Your task to perform on an android device: Open the phone app and click the voicemail tab. Image 0: 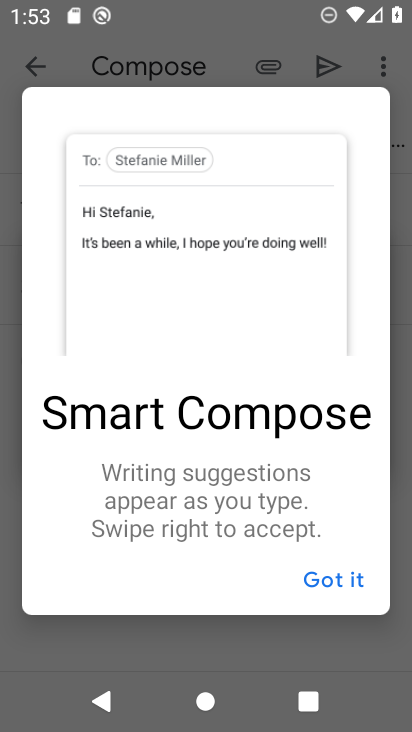
Step 0: press home button
Your task to perform on an android device: Open the phone app and click the voicemail tab. Image 1: 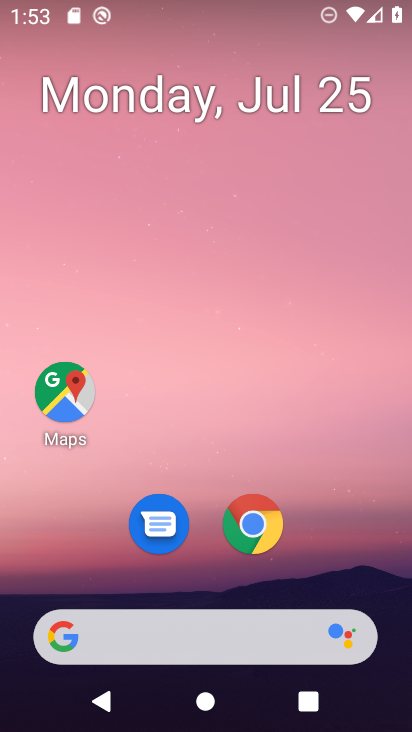
Step 1: drag from (189, 642) to (293, 36)
Your task to perform on an android device: Open the phone app and click the voicemail tab. Image 2: 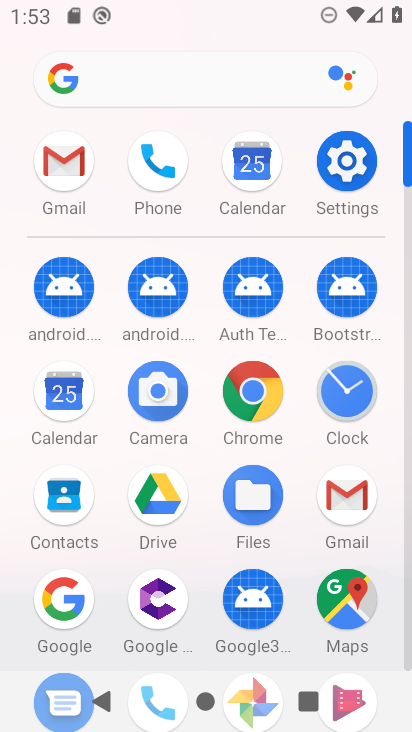
Step 2: drag from (214, 550) to (318, 183)
Your task to perform on an android device: Open the phone app and click the voicemail tab. Image 3: 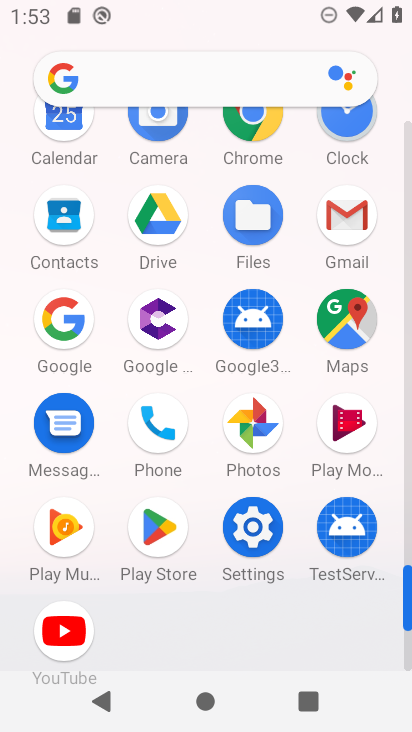
Step 3: click (168, 438)
Your task to perform on an android device: Open the phone app and click the voicemail tab. Image 4: 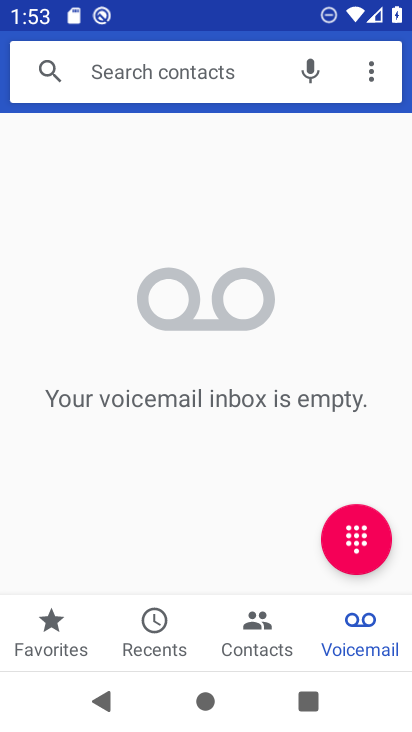
Step 4: task complete